Your task to perform on an android device: show emergency info Image 0: 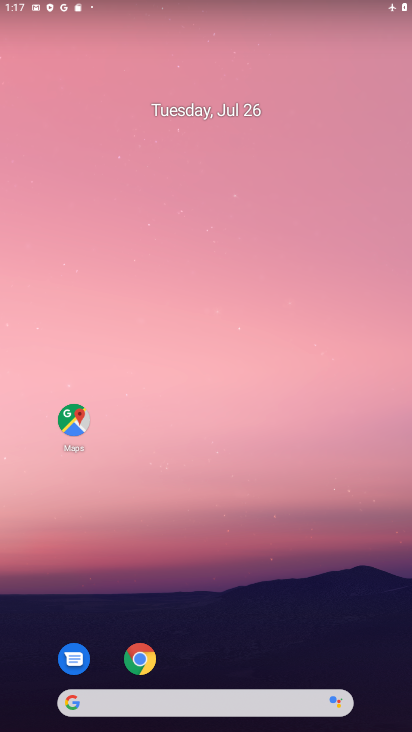
Step 0: press home button
Your task to perform on an android device: show emergency info Image 1: 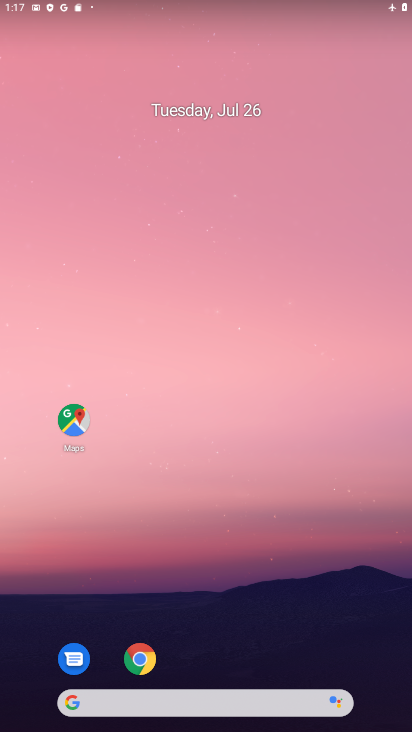
Step 1: drag from (272, 639) to (257, 72)
Your task to perform on an android device: show emergency info Image 2: 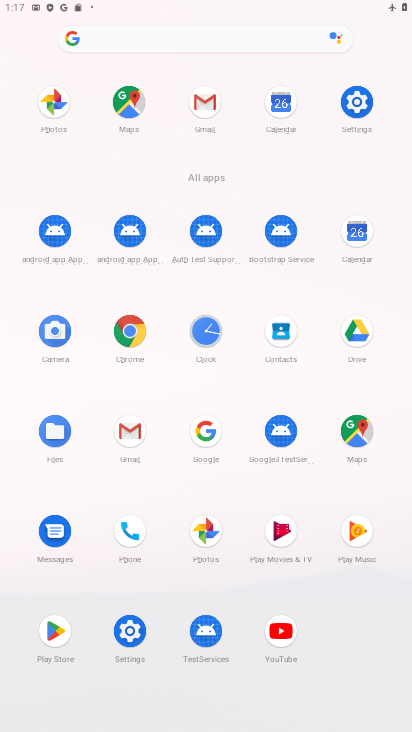
Step 2: click (359, 110)
Your task to perform on an android device: show emergency info Image 3: 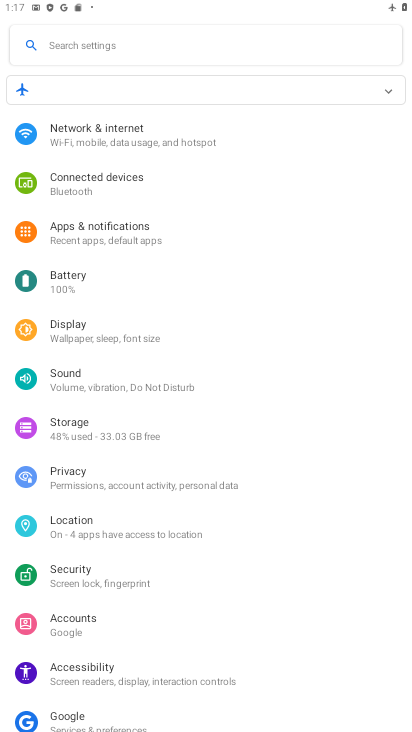
Step 3: drag from (303, 676) to (248, 125)
Your task to perform on an android device: show emergency info Image 4: 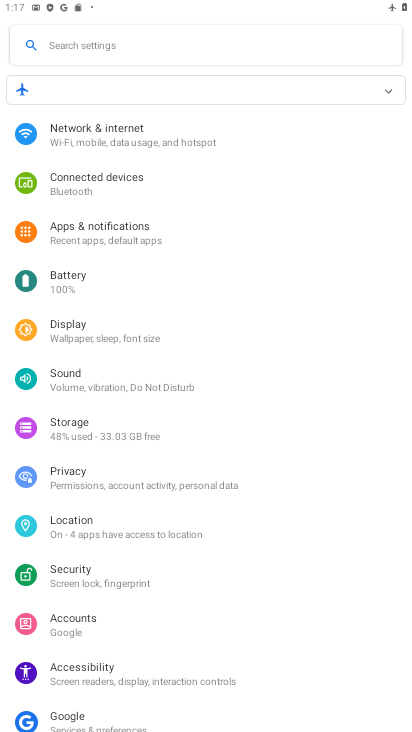
Step 4: drag from (203, 641) to (198, 140)
Your task to perform on an android device: show emergency info Image 5: 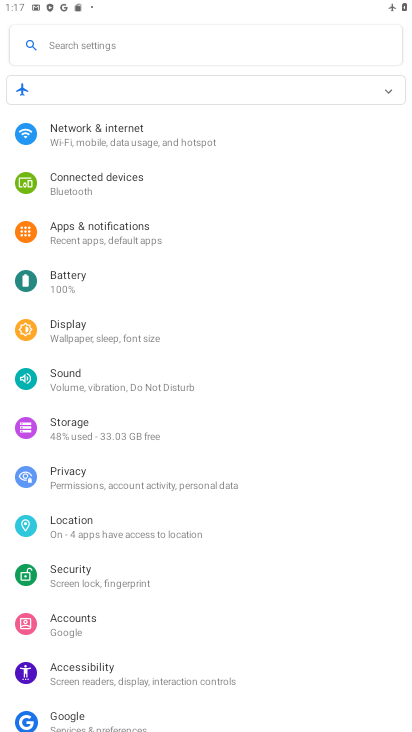
Step 5: drag from (316, 676) to (286, 97)
Your task to perform on an android device: show emergency info Image 6: 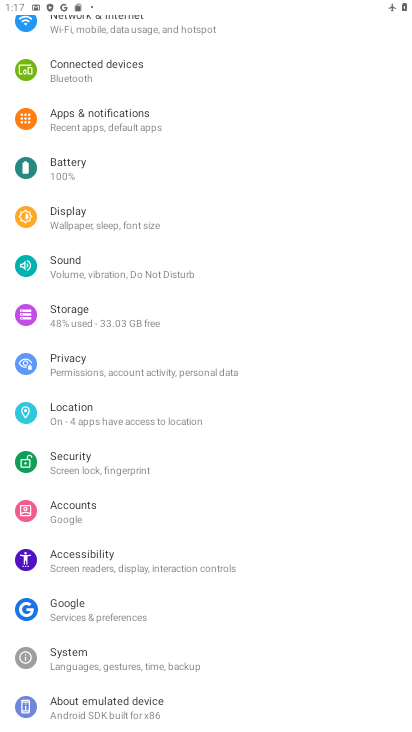
Step 6: click (98, 712)
Your task to perform on an android device: show emergency info Image 7: 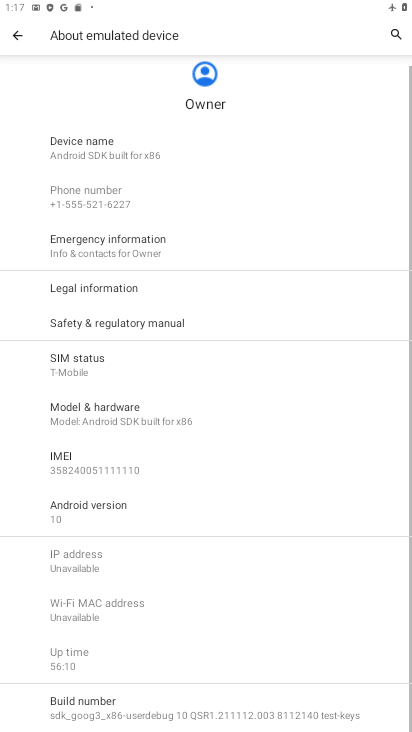
Step 7: click (91, 238)
Your task to perform on an android device: show emergency info Image 8: 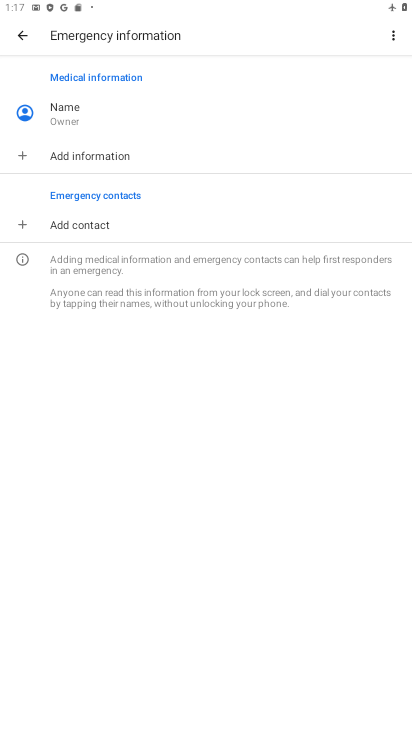
Step 8: task complete